Your task to perform on an android device: snooze an email in the gmail app Image 0: 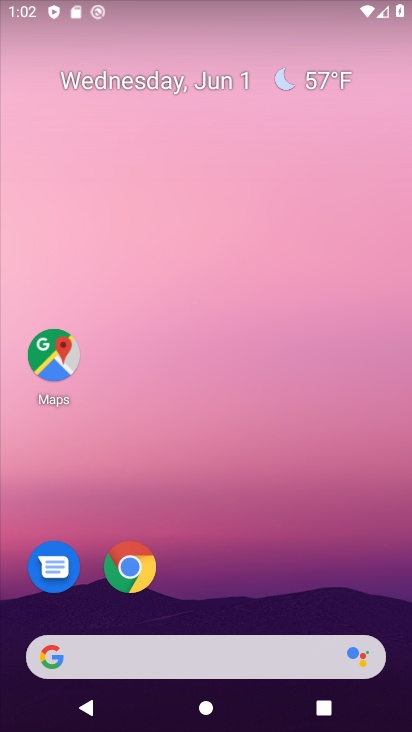
Step 0: drag from (301, 567) to (300, 225)
Your task to perform on an android device: snooze an email in the gmail app Image 1: 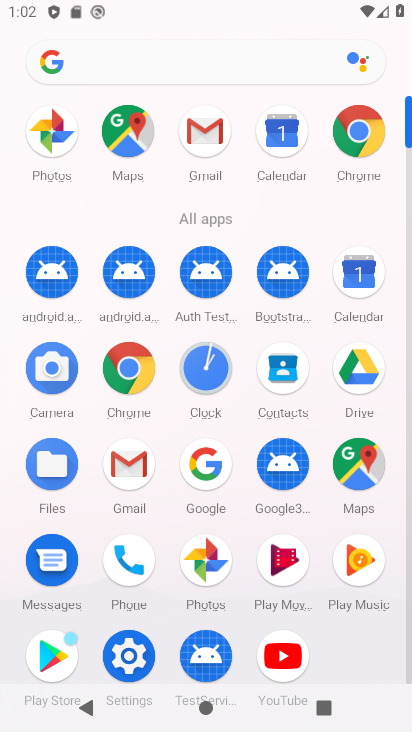
Step 1: click (136, 463)
Your task to perform on an android device: snooze an email in the gmail app Image 2: 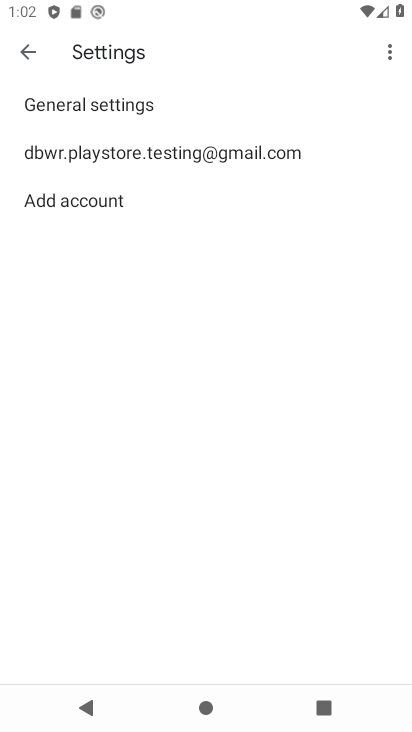
Step 2: click (29, 70)
Your task to perform on an android device: snooze an email in the gmail app Image 3: 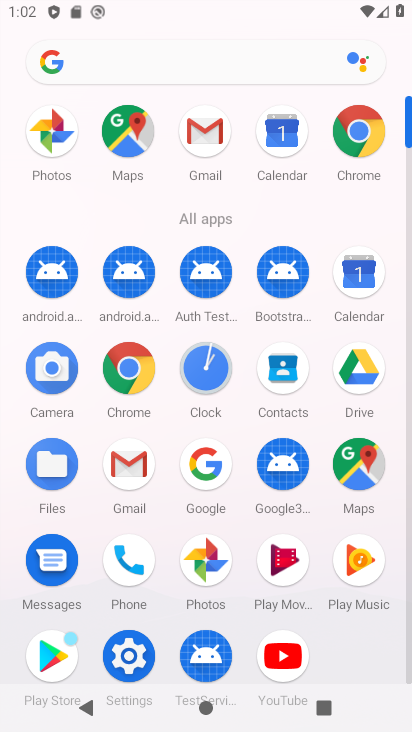
Step 3: click (129, 444)
Your task to perform on an android device: snooze an email in the gmail app Image 4: 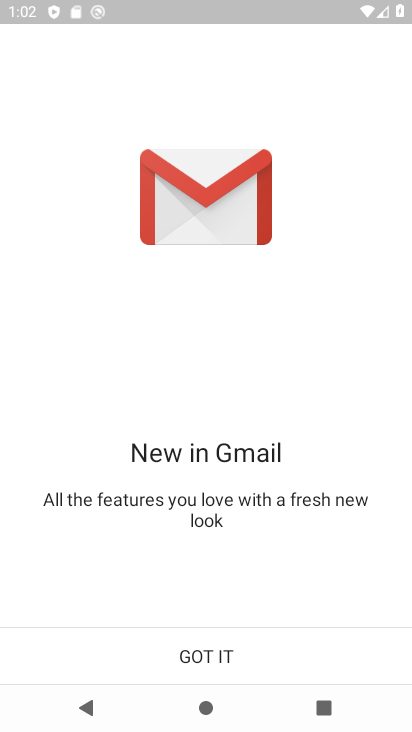
Step 4: click (212, 638)
Your task to perform on an android device: snooze an email in the gmail app Image 5: 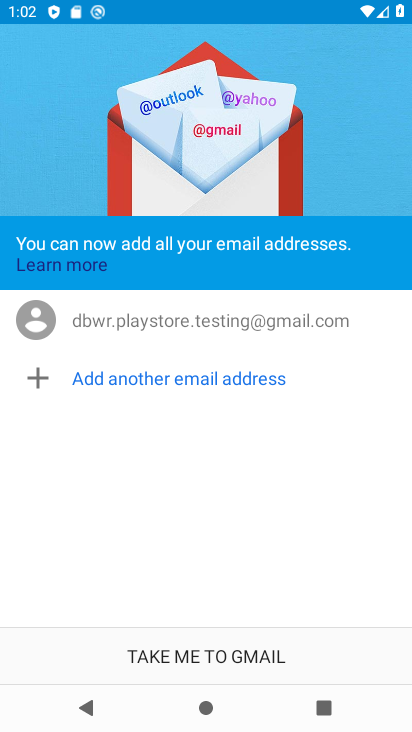
Step 5: click (212, 638)
Your task to perform on an android device: snooze an email in the gmail app Image 6: 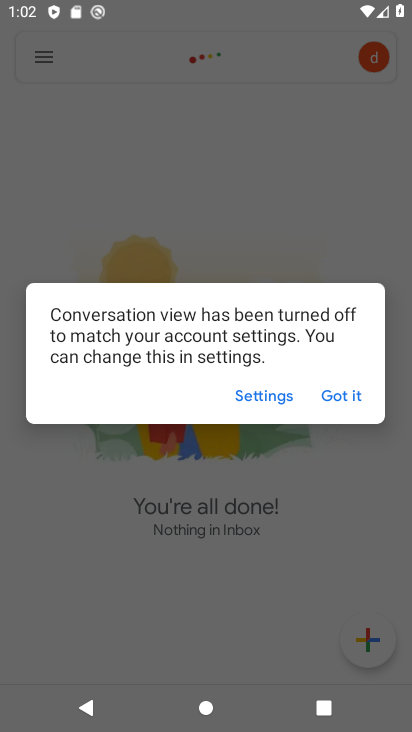
Step 6: click (343, 389)
Your task to perform on an android device: snooze an email in the gmail app Image 7: 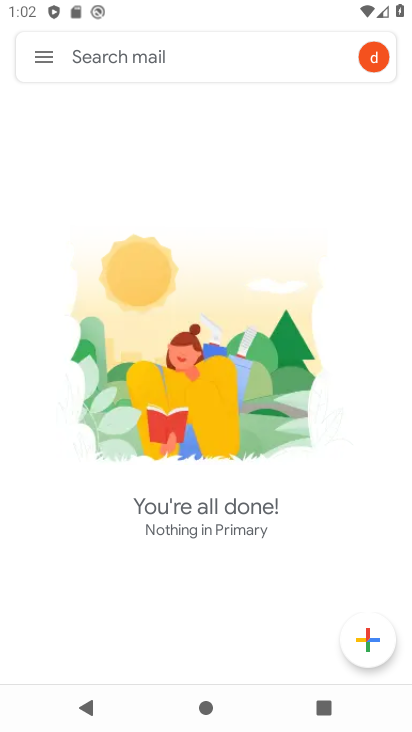
Step 7: task complete